Your task to perform on an android device: Find coffee shops on Maps Image 0: 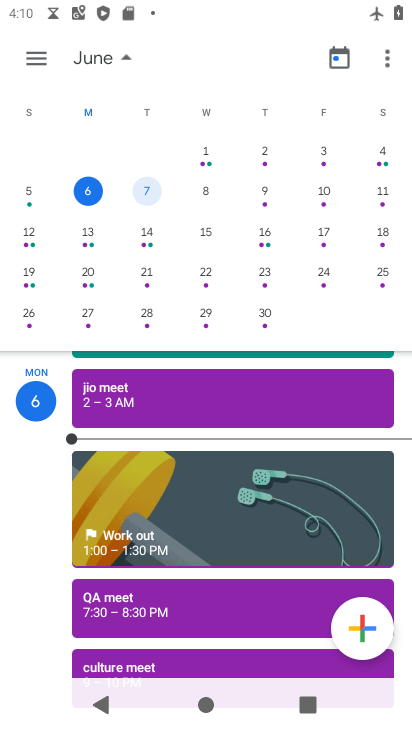
Step 0: press home button
Your task to perform on an android device: Find coffee shops on Maps Image 1: 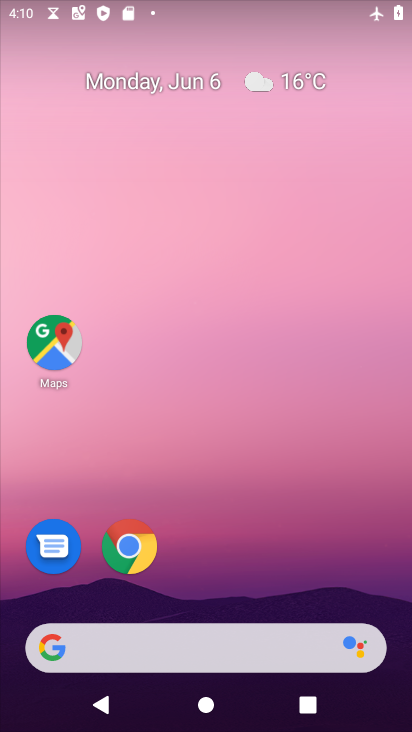
Step 1: drag from (306, 568) to (389, 46)
Your task to perform on an android device: Find coffee shops on Maps Image 2: 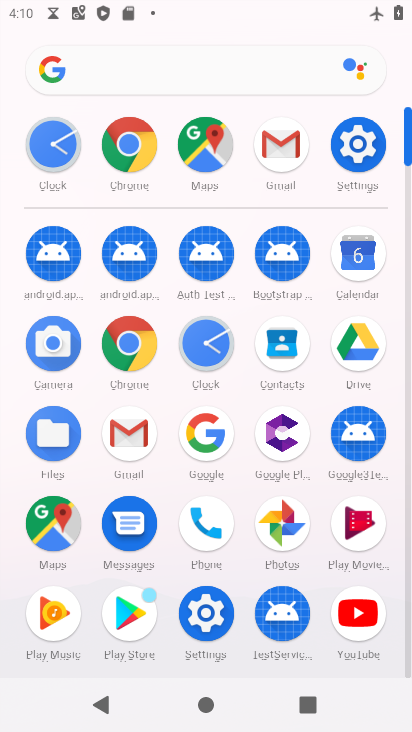
Step 2: click (58, 525)
Your task to perform on an android device: Find coffee shops on Maps Image 3: 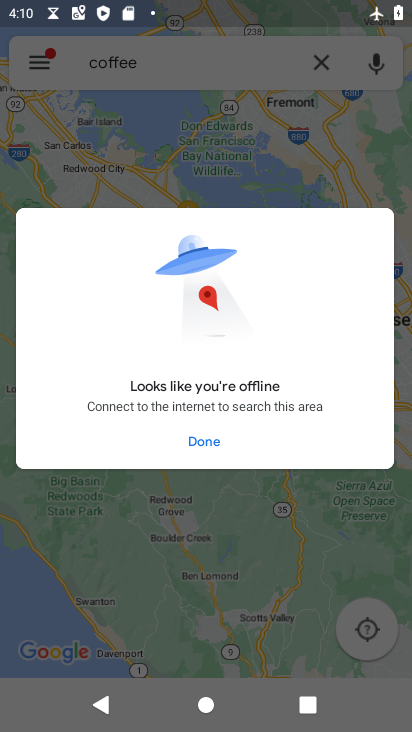
Step 3: task complete